Your task to perform on an android device: turn on wifi Image 0: 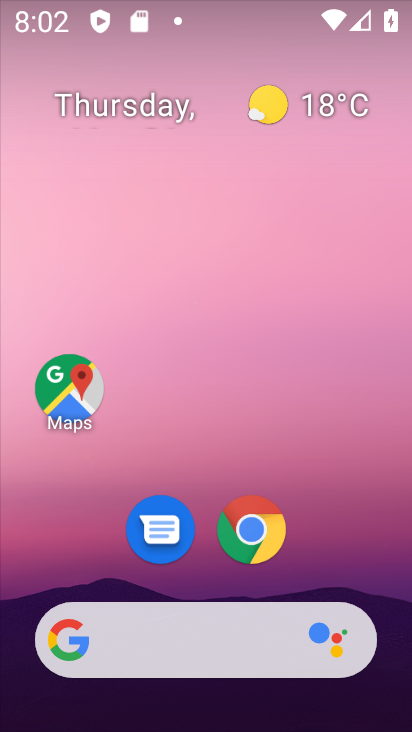
Step 0: drag from (277, 626) to (255, 278)
Your task to perform on an android device: turn on wifi Image 1: 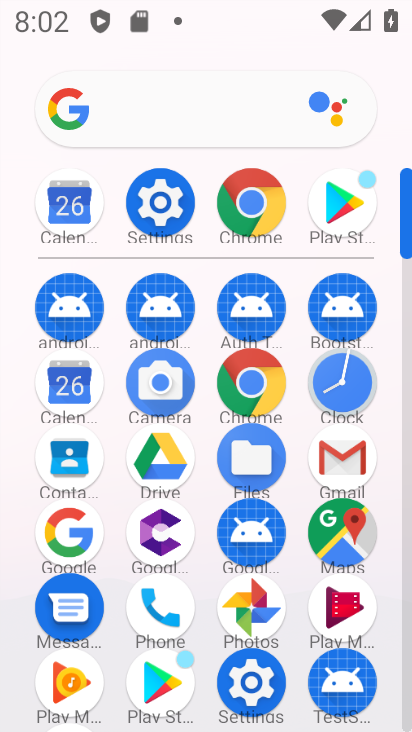
Step 1: click (253, 677)
Your task to perform on an android device: turn on wifi Image 2: 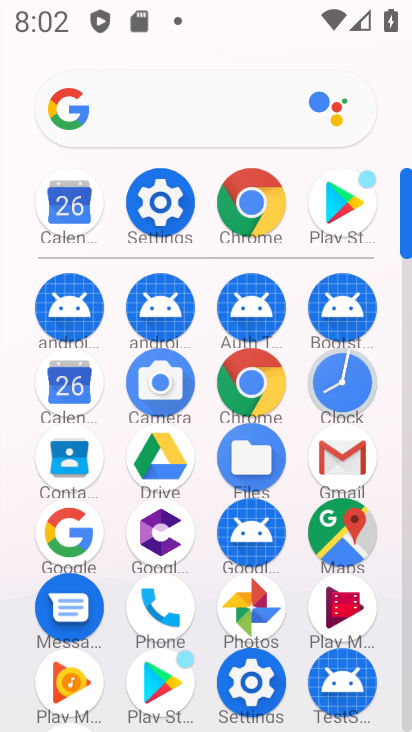
Step 2: click (249, 680)
Your task to perform on an android device: turn on wifi Image 3: 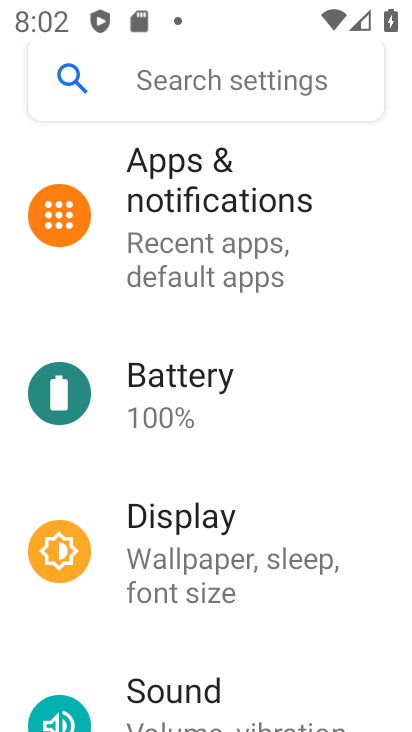
Step 3: drag from (208, 216) to (262, 586)
Your task to perform on an android device: turn on wifi Image 4: 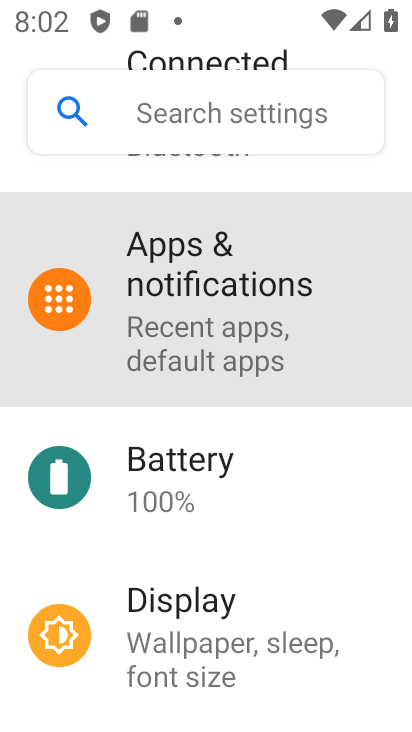
Step 4: drag from (161, 643) to (197, 631)
Your task to perform on an android device: turn on wifi Image 5: 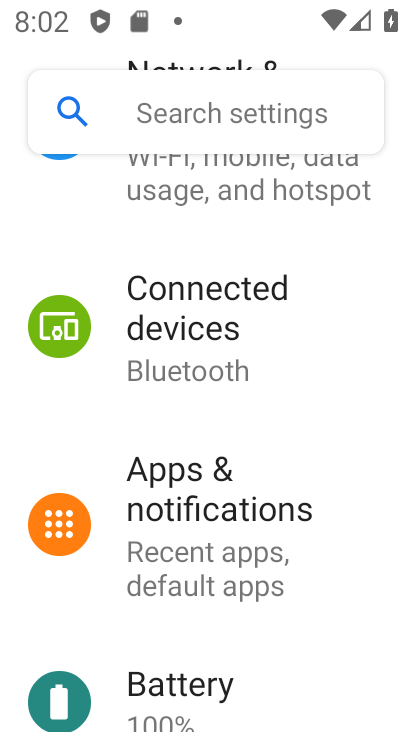
Step 5: drag from (247, 232) to (242, 610)
Your task to perform on an android device: turn on wifi Image 6: 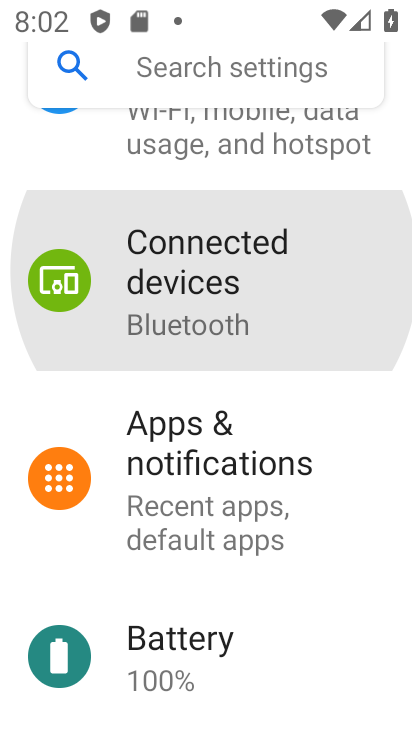
Step 6: drag from (208, 210) to (191, 560)
Your task to perform on an android device: turn on wifi Image 7: 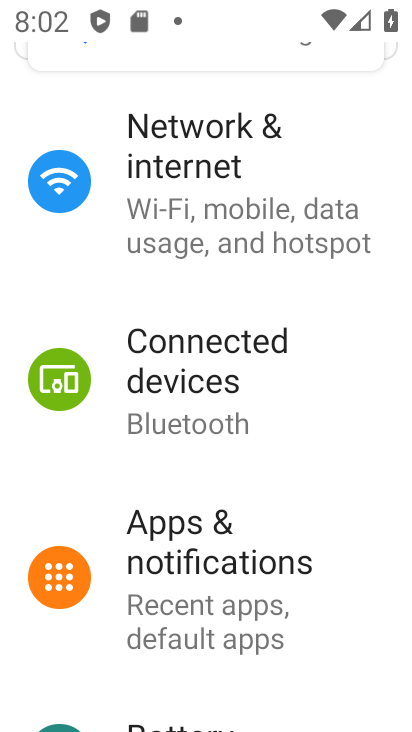
Step 7: drag from (214, 255) to (219, 541)
Your task to perform on an android device: turn on wifi Image 8: 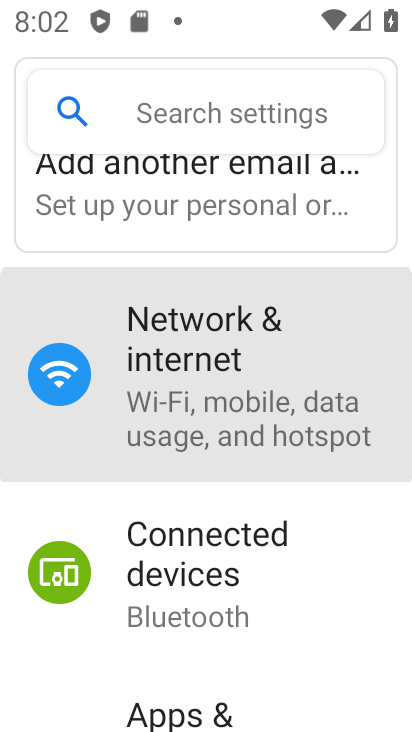
Step 8: drag from (183, 227) to (192, 613)
Your task to perform on an android device: turn on wifi Image 9: 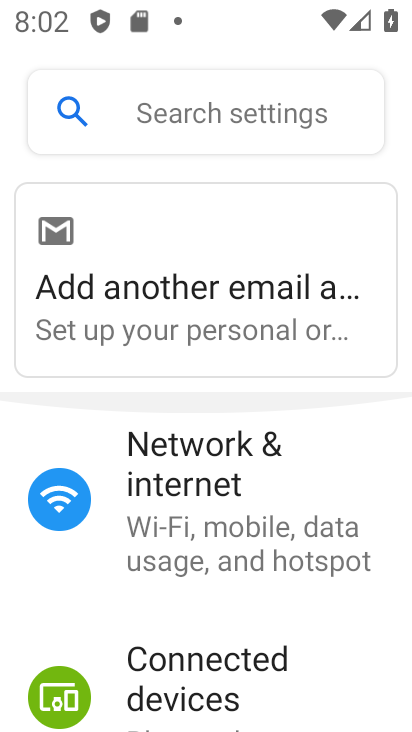
Step 9: drag from (201, 255) to (188, 624)
Your task to perform on an android device: turn on wifi Image 10: 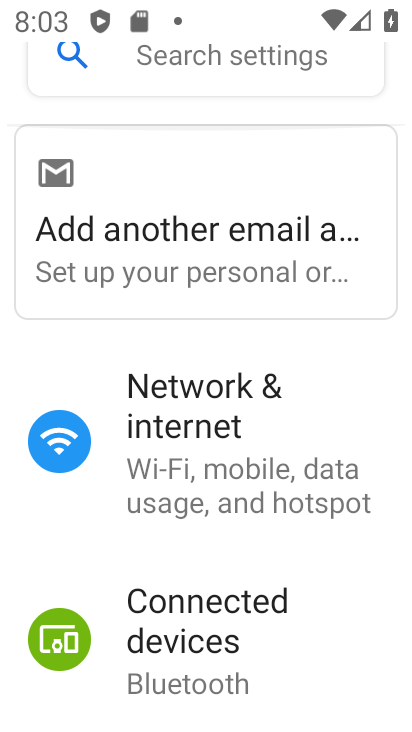
Step 10: drag from (197, 204) to (171, 696)
Your task to perform on an android device: turn on wifi Image 11: 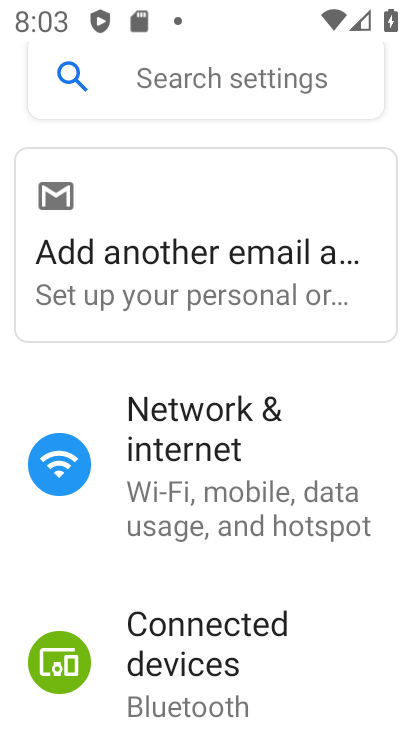
Step 11: click (206, 482)
Your task to perform on an android device: turn on wifi Image 12: 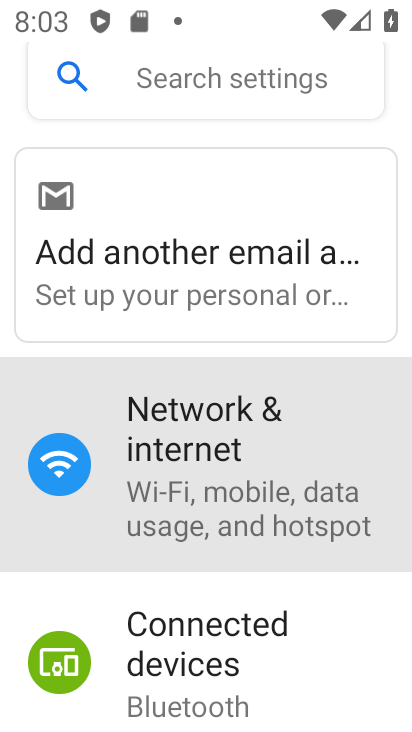
Step 12: click (206, 482)
Your task to perform on an android device: turn on wifi Image 13: 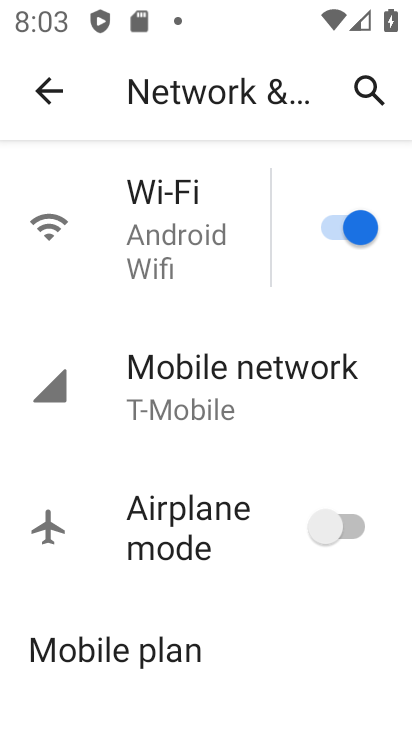
Step 13: task complete